Your task to perform on an android device: What's the weather today? Image 0: 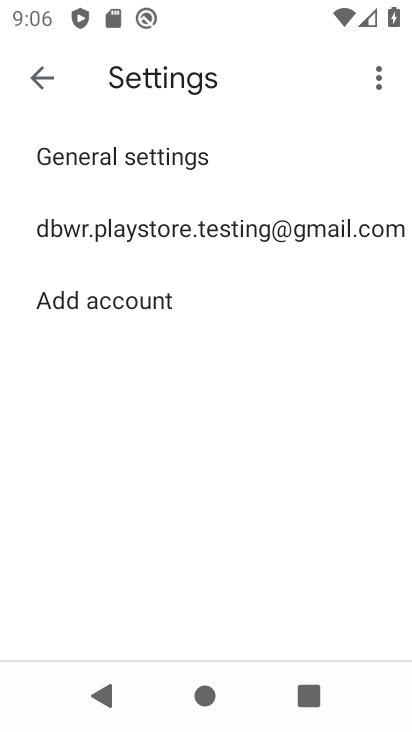
Step 0: press home button
Your task to perform on an android device: What's the weather today? Image 1: 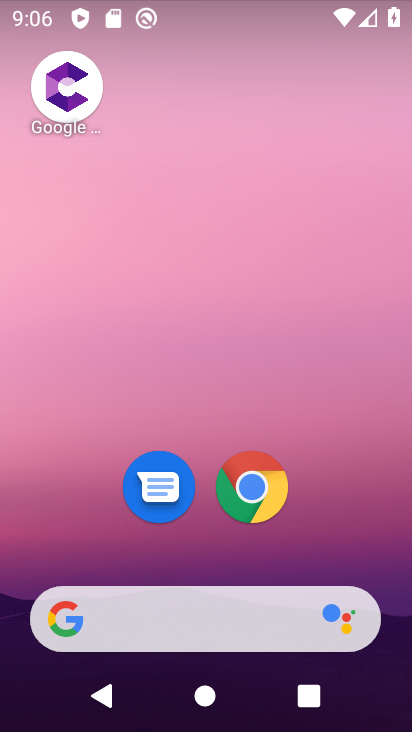
Step 1: drag from (25, 212) to (386, 247)
Your task to perform on an android device: What's the weather today? Image 2: 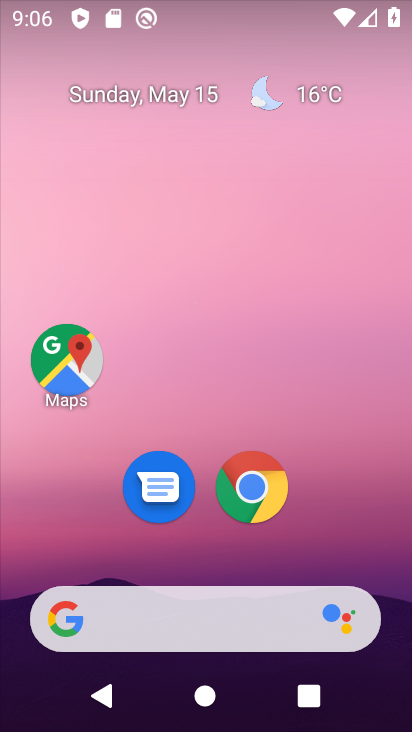
Step 2: click (318, 89)
Your task to perform on an android device: What's the weather today? Image 3: 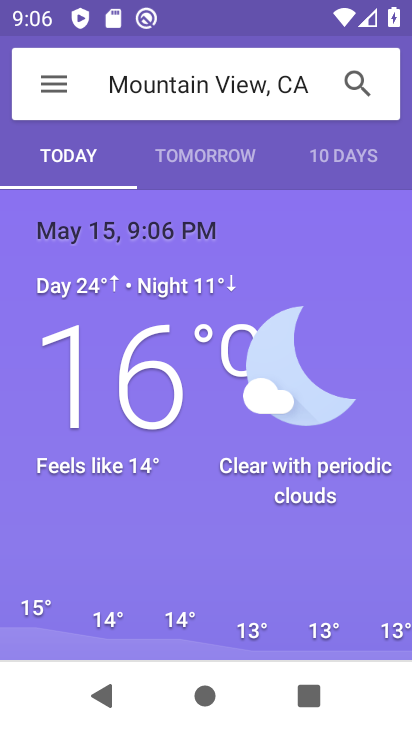
Step 3: task complete